Your task to perform on an android device: Turn off the flashlight Image 0: 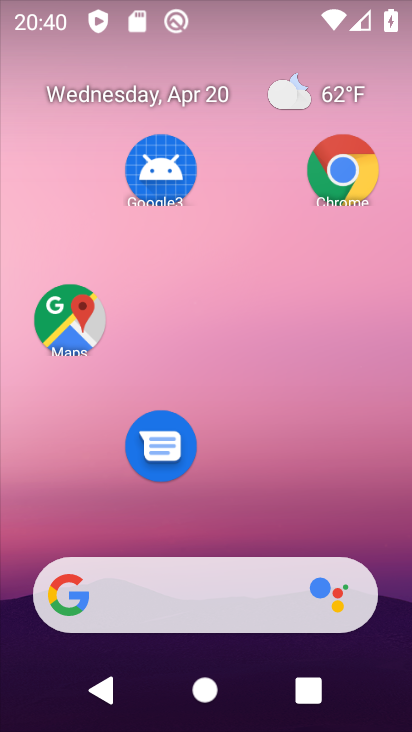
Step 0: drag from (232, 494) to (232, 6)
Your task to perform on an android device: Turn off the flashlight Image 1: 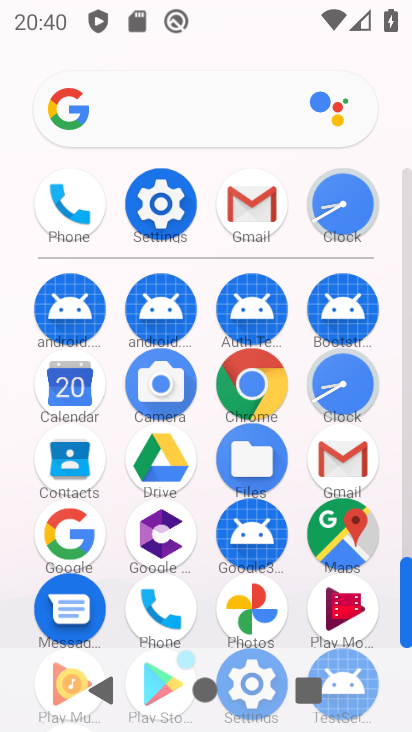
Step 1: click (163, 187)
Your task to perform on an android device: Turn off the flashlight Image 2: 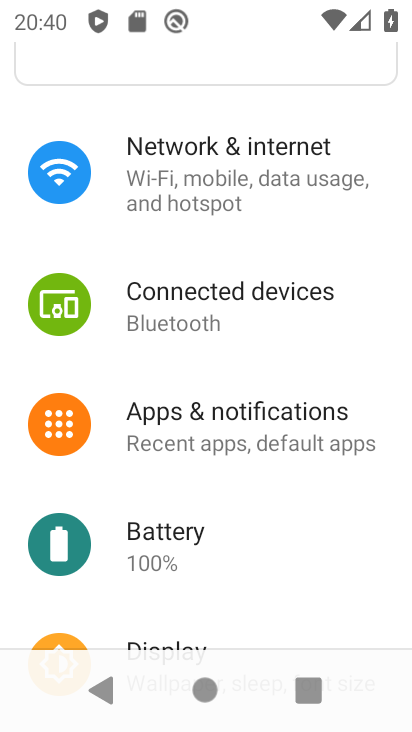
Step 2: click (205, 300)
Your task to perform on an android device: Turn off the flashlight Image 3: 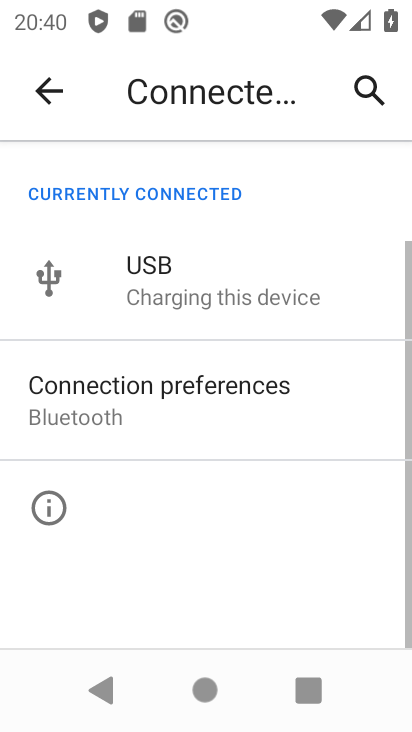
Step 3: task complete